Your task to perform on an android device: toggle notification dots Image 0: 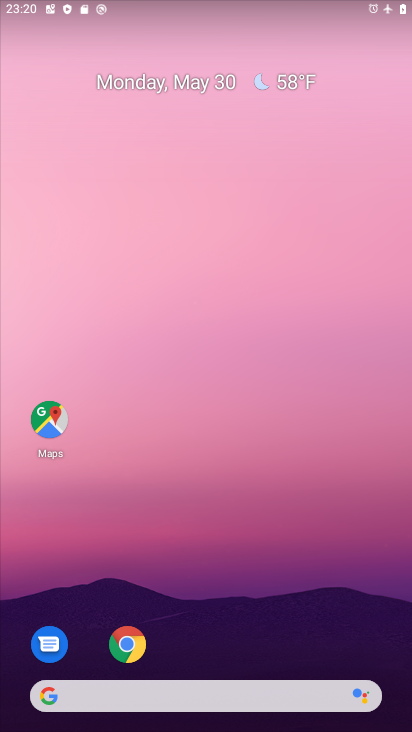
Step 0: drag from (361, 630) to (288, 136)
Your task to perform on an android device: toggle notification dots Image 1: 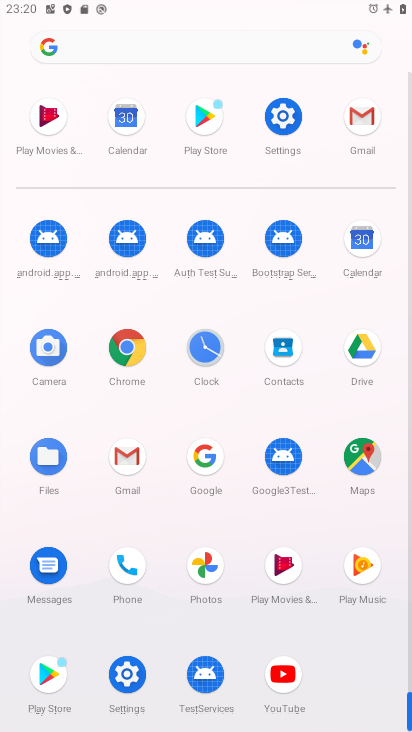
Step 1: click (122, 675)
Your task to perform on an android device: toggle notification dots Image 2: 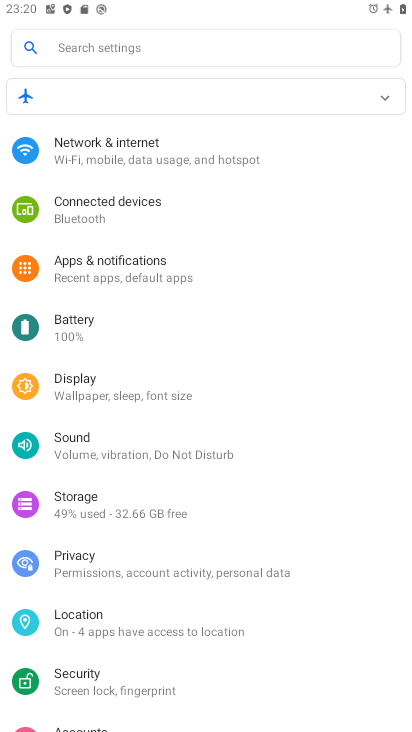
Step 2: click (116, 262)
Your task to perform on an android device: toggle notification dots Image 3: 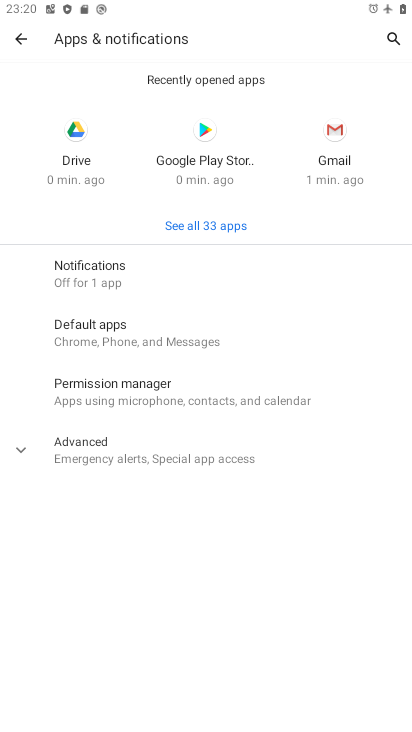
Step 3: click (88, 269)
Your task to perform on an android device: toggle notification dots Image 4: 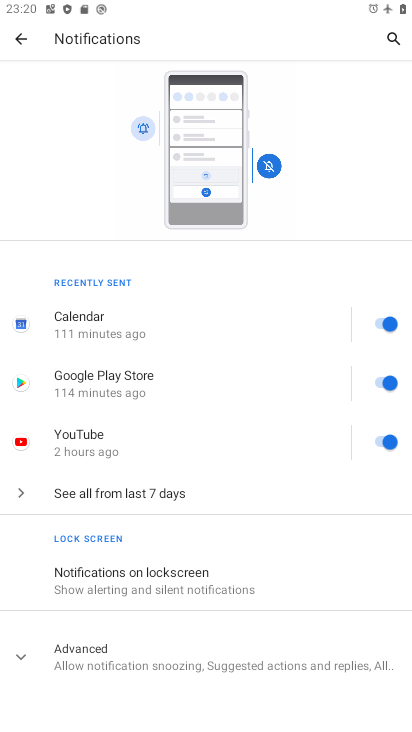
Step 4: click (17, 661)
Your task to perform on an android device: toggle notification dots Image 5: 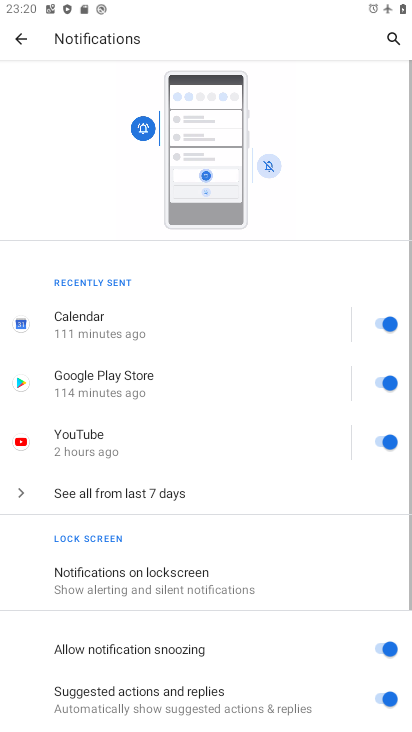
Step 5: drag from (291, 586) to (269, 167)
Your task to perform on an android device: toggle notification dots Image 6: 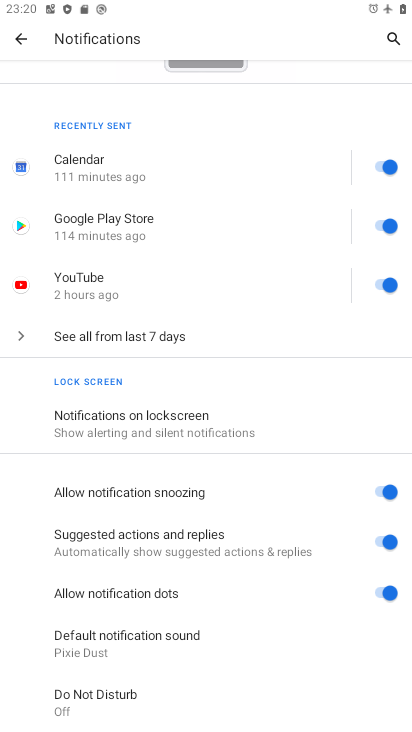
Step 6: click (376, 589)
Your task to perform on an android device: toggle notification dots Image 7: 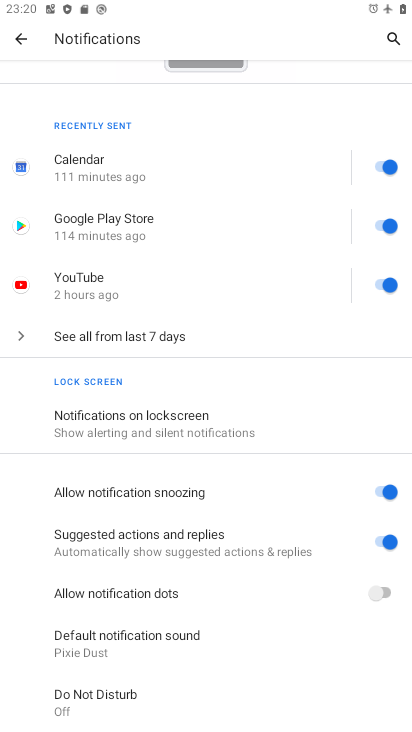
Step 7: task complete